Your task to perform on an android device: open chrome privacy settings Image 0: 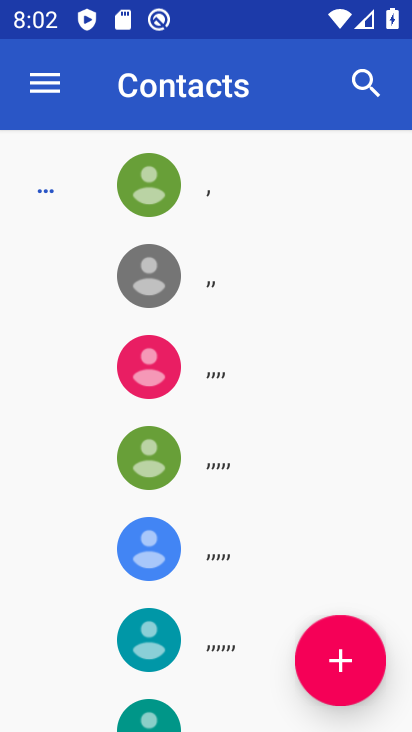
Step 0: press home button
Your task to perform on an android device: open chrome privacy settings Image 1: 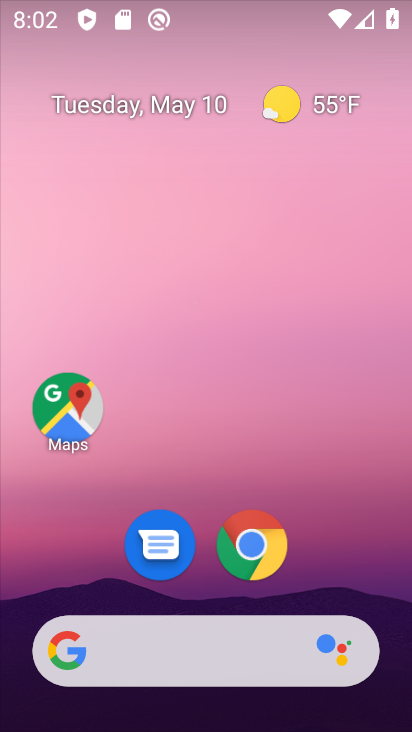
Step 1: click (251, 568)
Your task to perform on an android device: open chrome privacy settings Image 2: 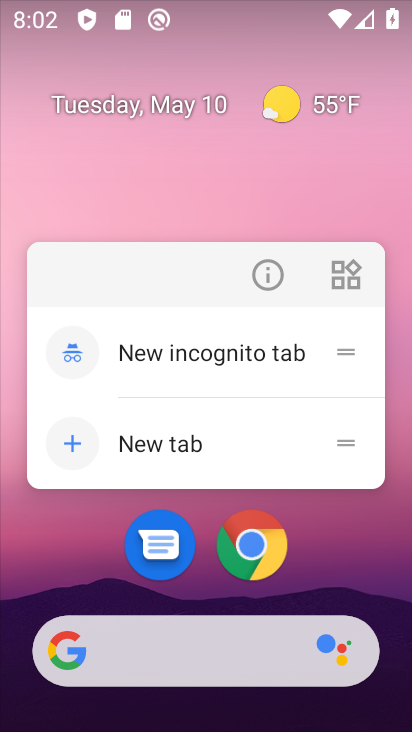
Step 2: click (241, 526)
Your task to perform on an android device: open chrome privacy settings Image 3: 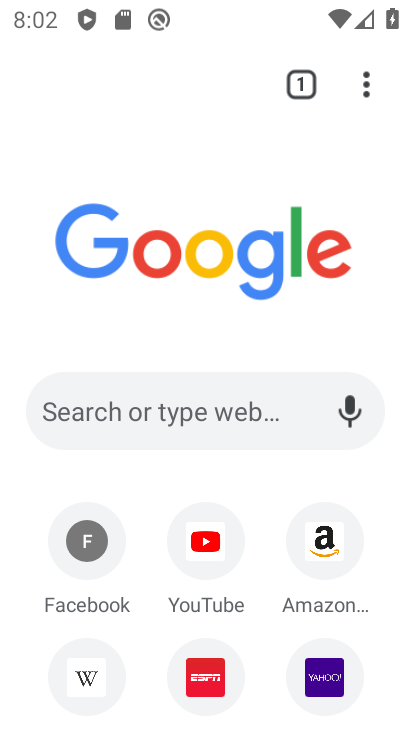
Step 3: drag from (366, 81) to (276, 402)
Your task to perform on an android device: open chrome privacy settings Image 4: 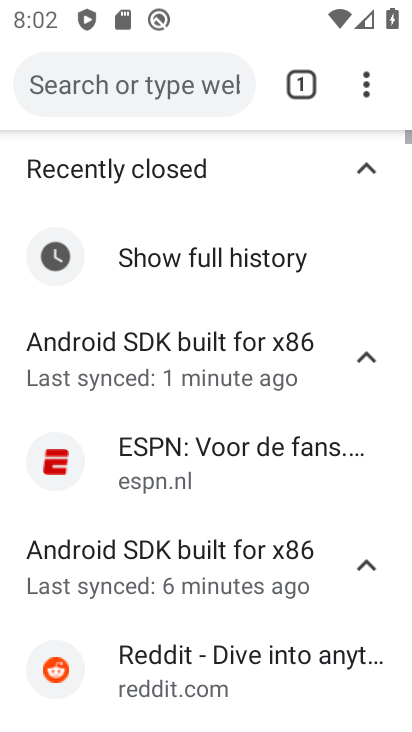
Step 4: click (359, 85)
Your task to perform on an android device: open chrome privacy settings Image 5: 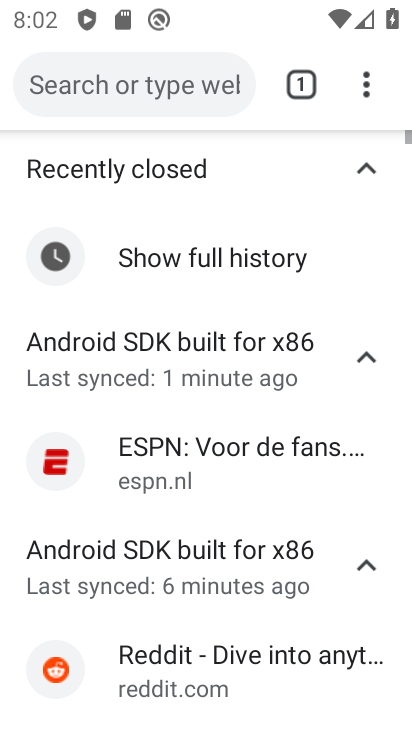
Step 5: click (366, 67)
Your task to perform on an android device: open chrome privacy settings Image 6: 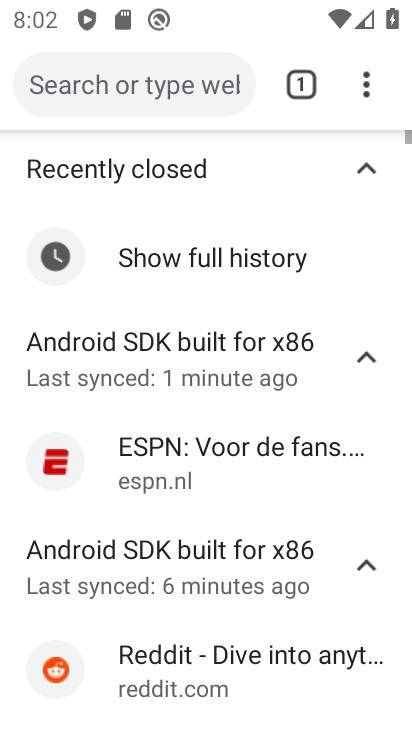
Step 6: drag from (359, 77) to (126, 594)
Your task to perform on an android device: open chrome privacy settings Image 7: 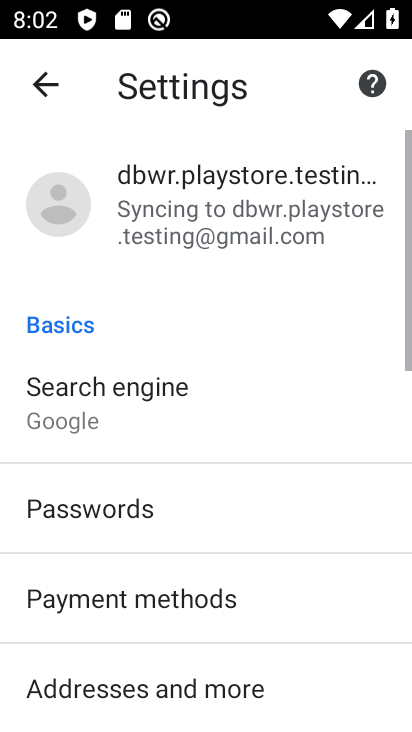
Step 7: drag from (126, 594) to (191, 188)
Your task to perform on an android device: open chrome privacy settings Image 8: 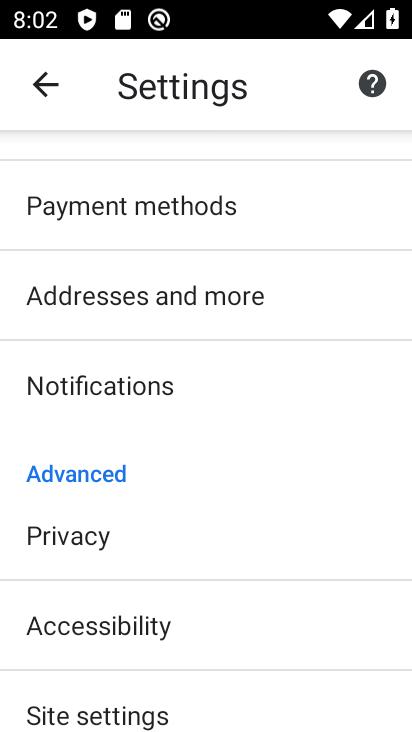
Step 8: click (122, 565)
Your task to perform on an android device: open chrome privacy settings Image 9: 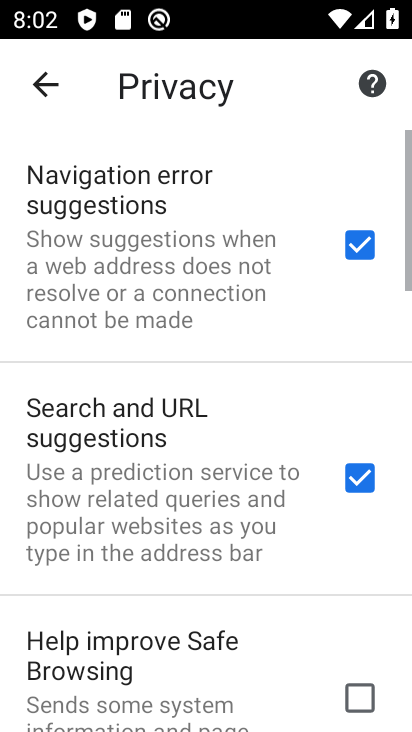
Step 9: task complete